Your task to perform on an android device: open app "DoorDash - Food Delivery" Image 0: 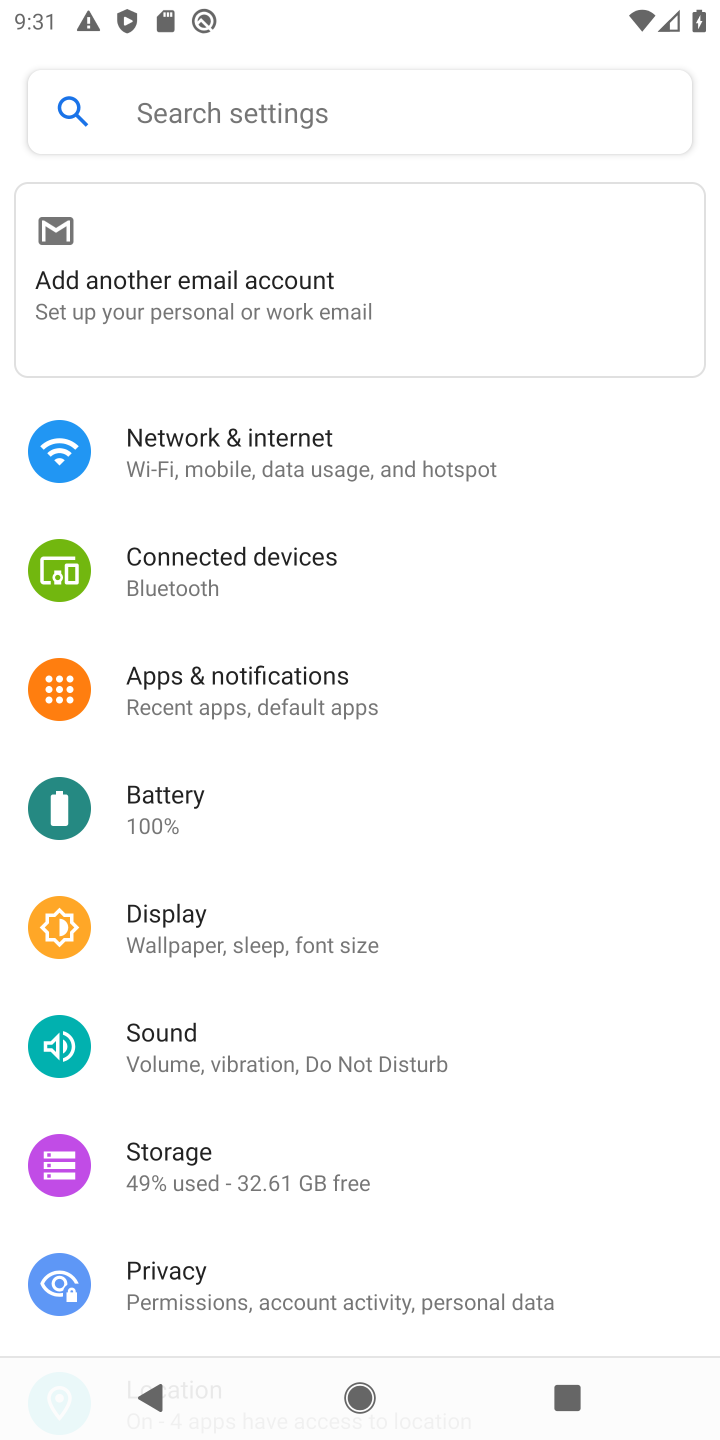
Step 0: press home button
Your task to perform on an android device: open app "DoorDash - Food Delivery" Image 1: 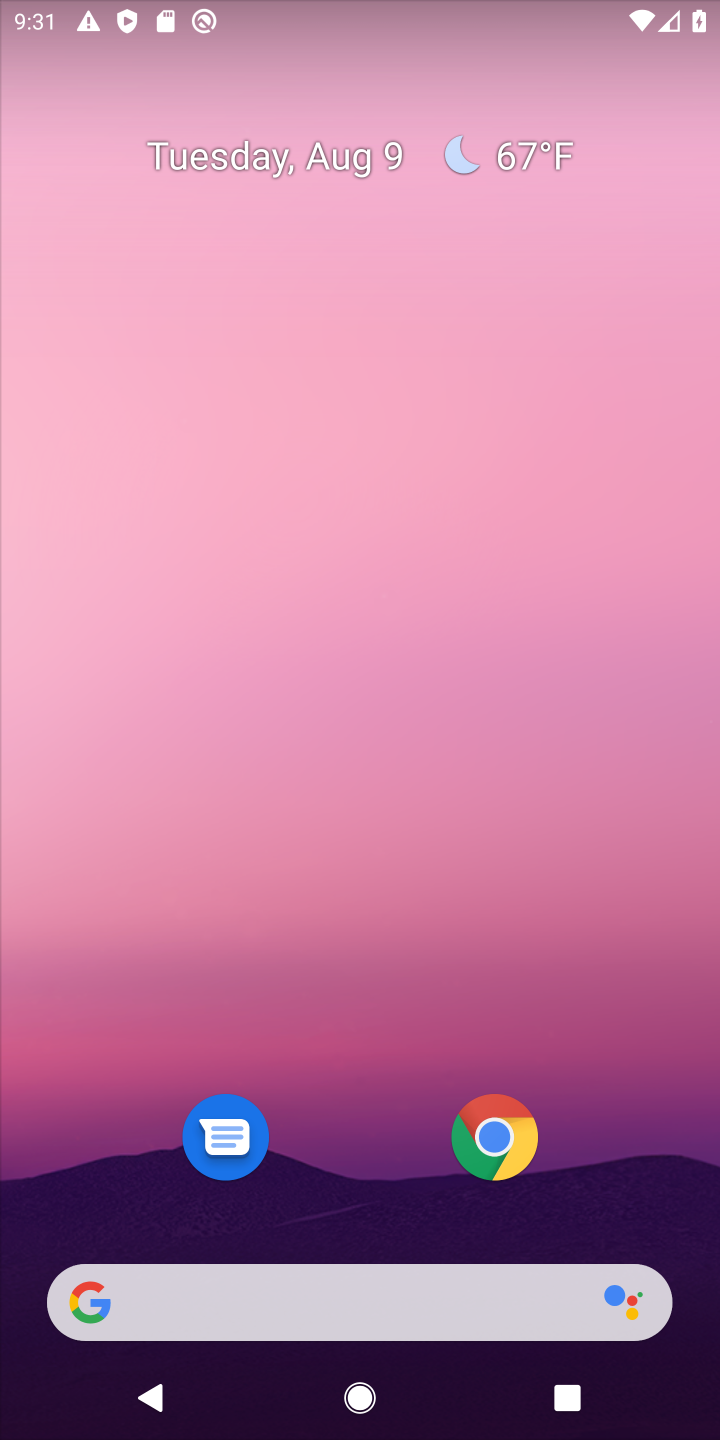
Step 1: drag from (708, 1245) to (554, 153)
Your task to perform on an android device: open app "DoorDash - Food Delivery" Image 2: 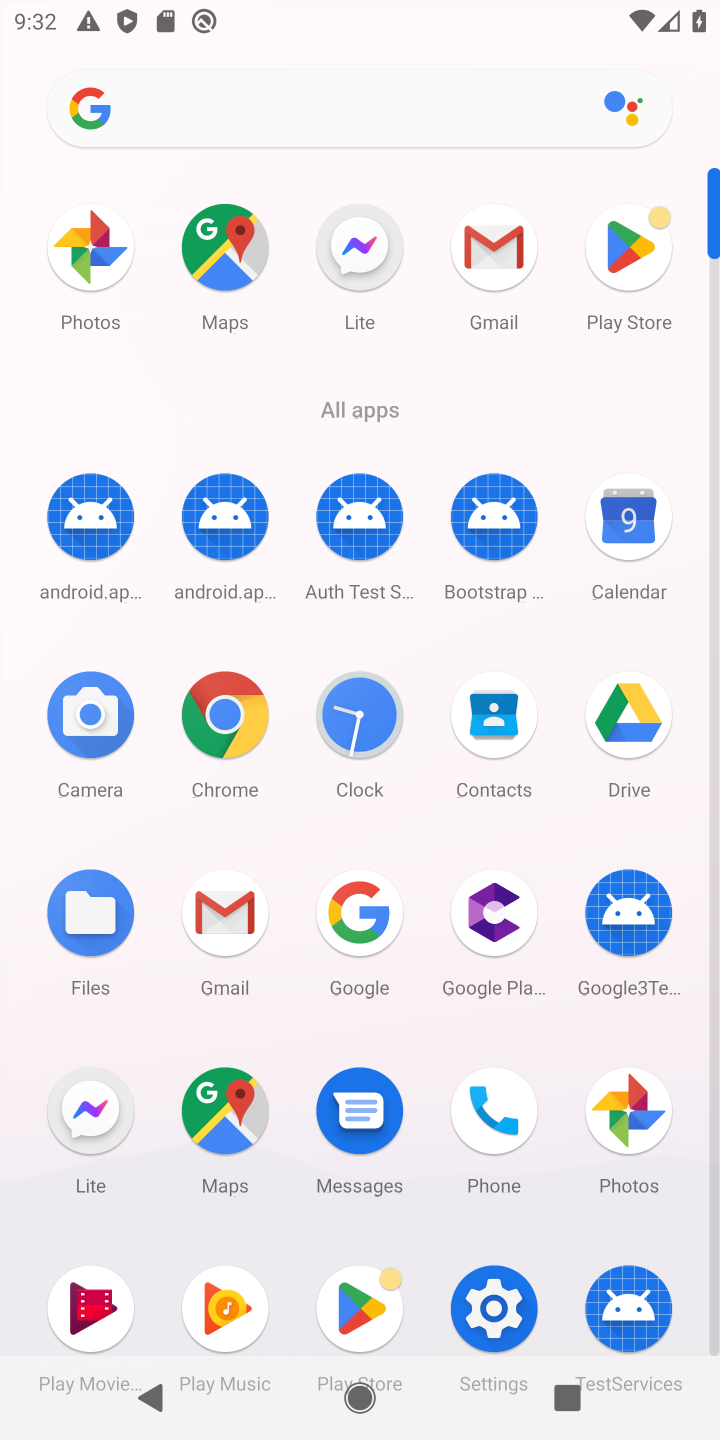
Step 2: click (628, 241)
Your task to perform on an android device: open app "DoorDash - Food Delivery" Image 3: 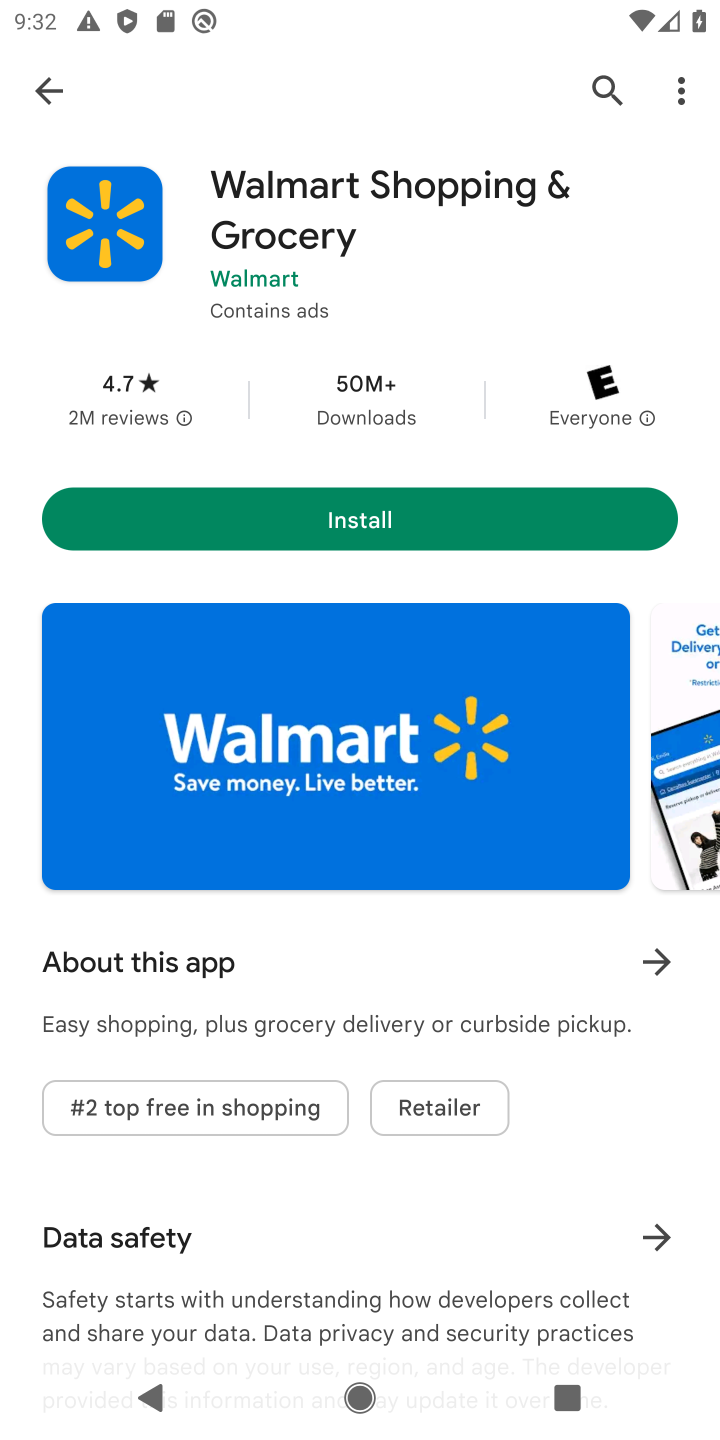
Step 3: press back button
Your task to perform on an android device: open app "DoorDash - Food Delivery" Image 4: 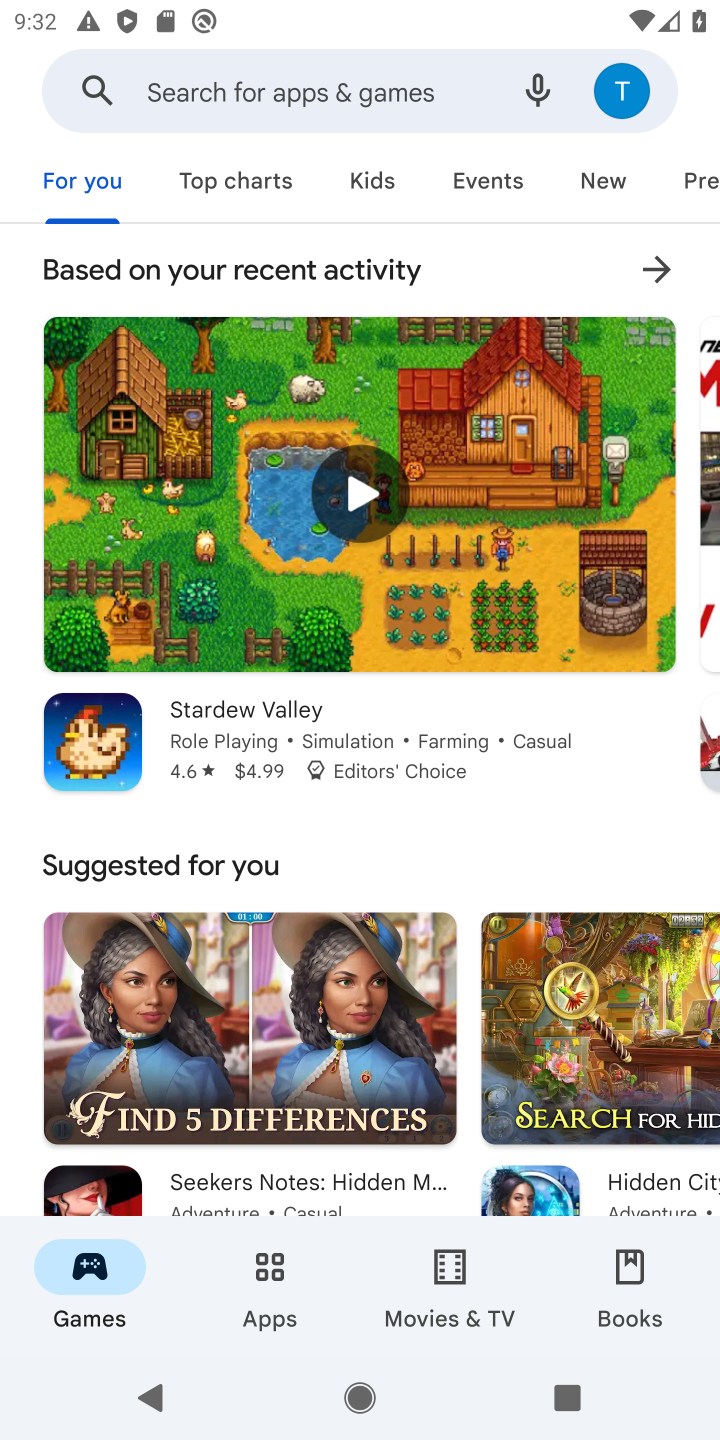
Step 4: click (233, 87)
Your task to perform on an android device: open app "DoorDash - Food Delivery" Image 5: 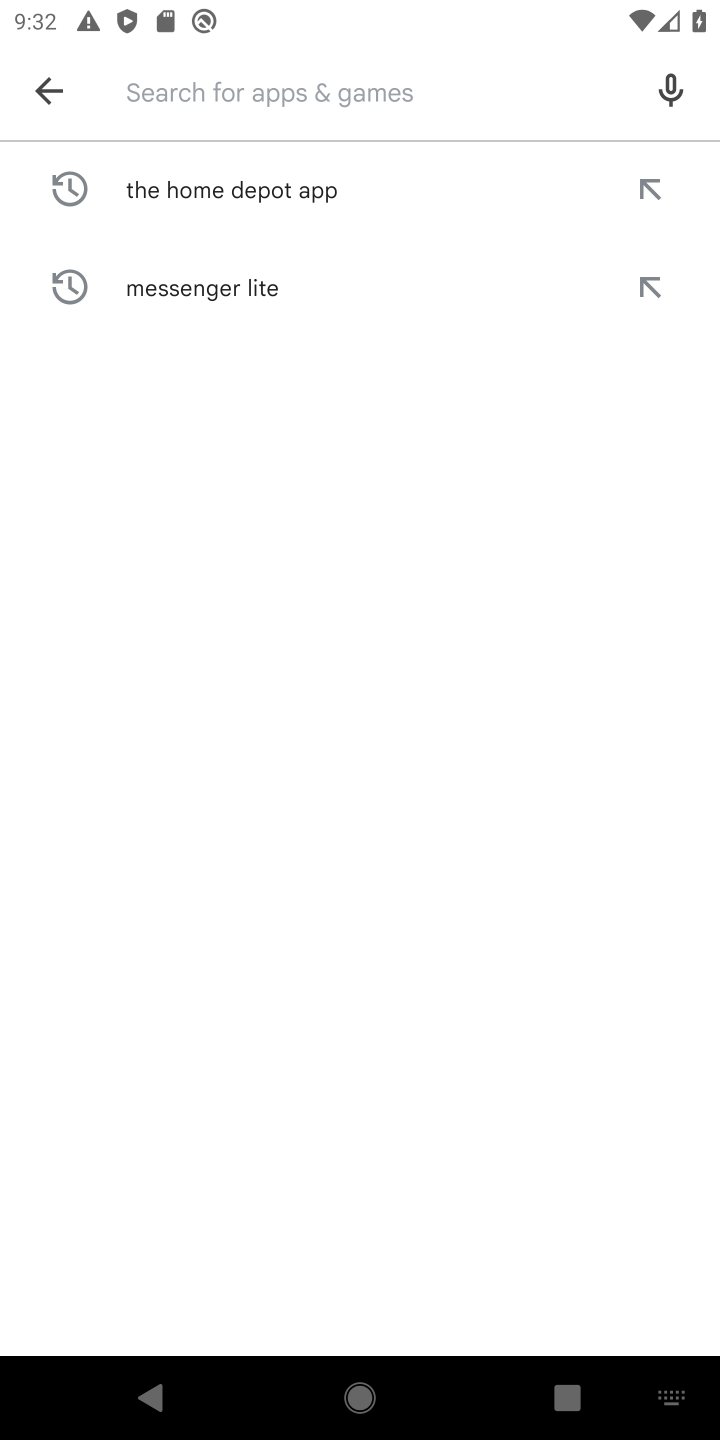
Step 5: type "DoorDash - Food Delivery"
Your task to perform on an android device: open app "DoorDash - Food Delivery" Image 6: 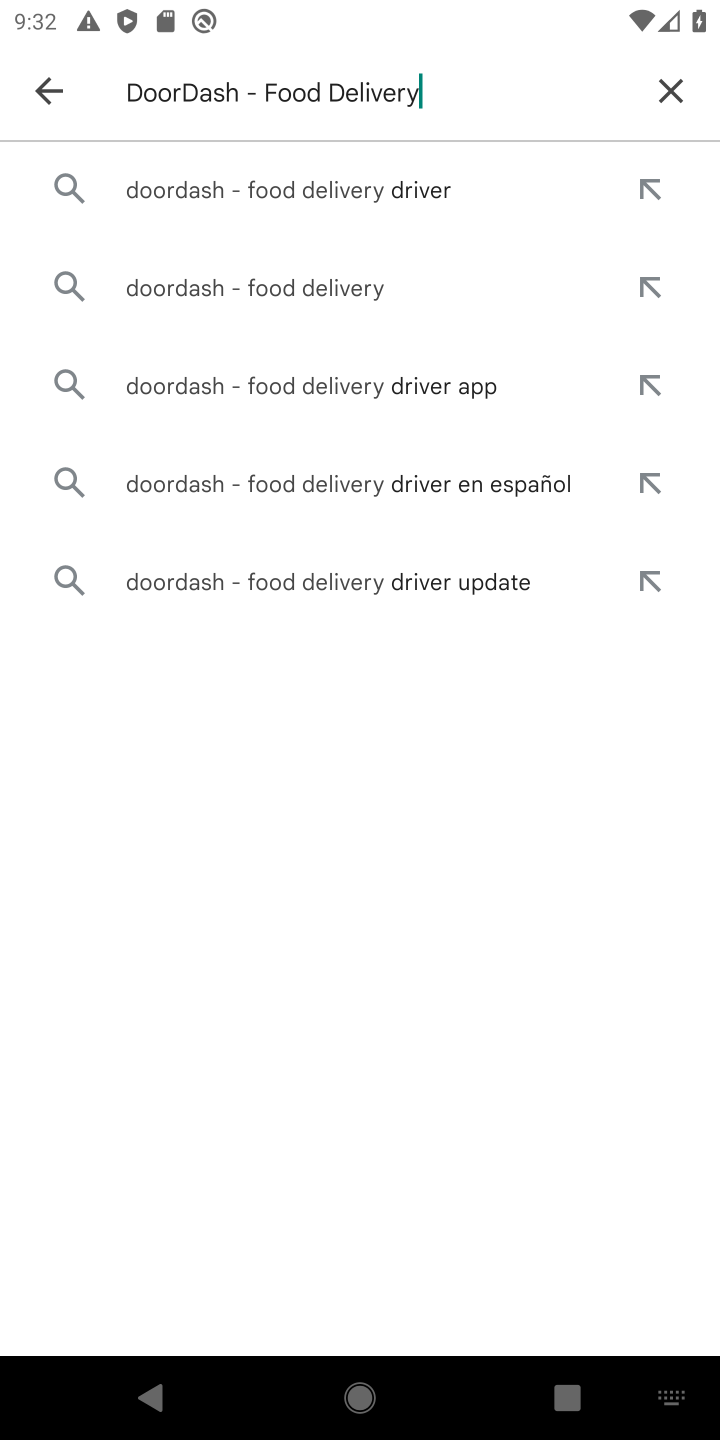
Step 6: click (311, 183)
Your task to perform on an android device: open app "DoorDash - Food Delivery" Image 7: 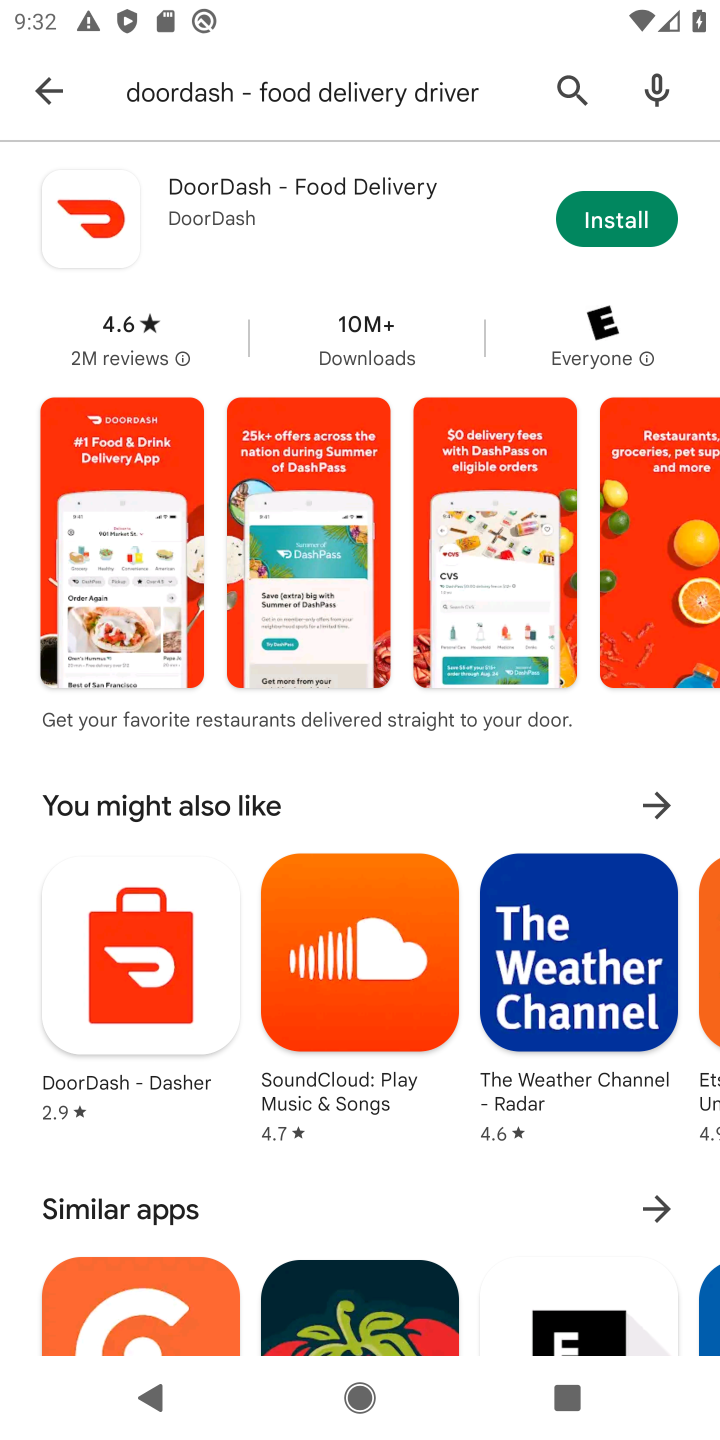
Step 7: task complete